Your task to perform on an android device: Open settings on Google Maps Image 0: 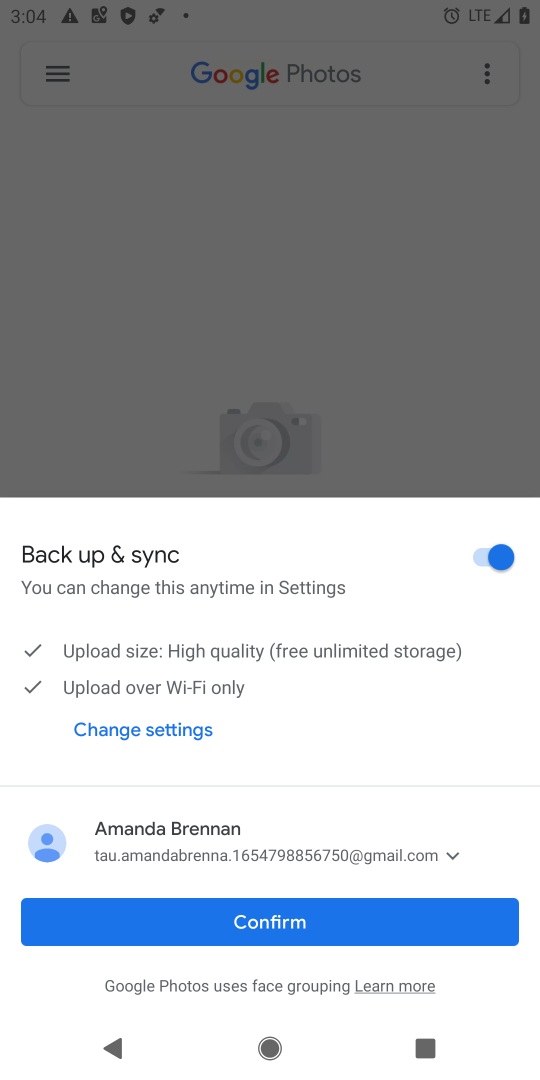
Step 0: press home button
Your task to perform on an android device: Open settings on Google Maps Image 1: 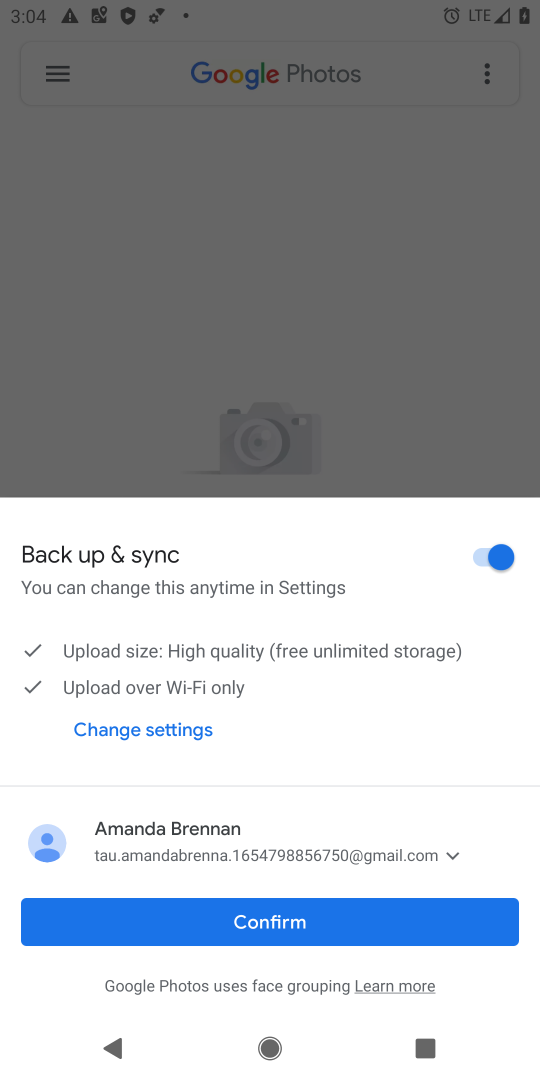
Step 1: press home button
Your task to perform on an android device: Open settings on Google Maps Image 2: 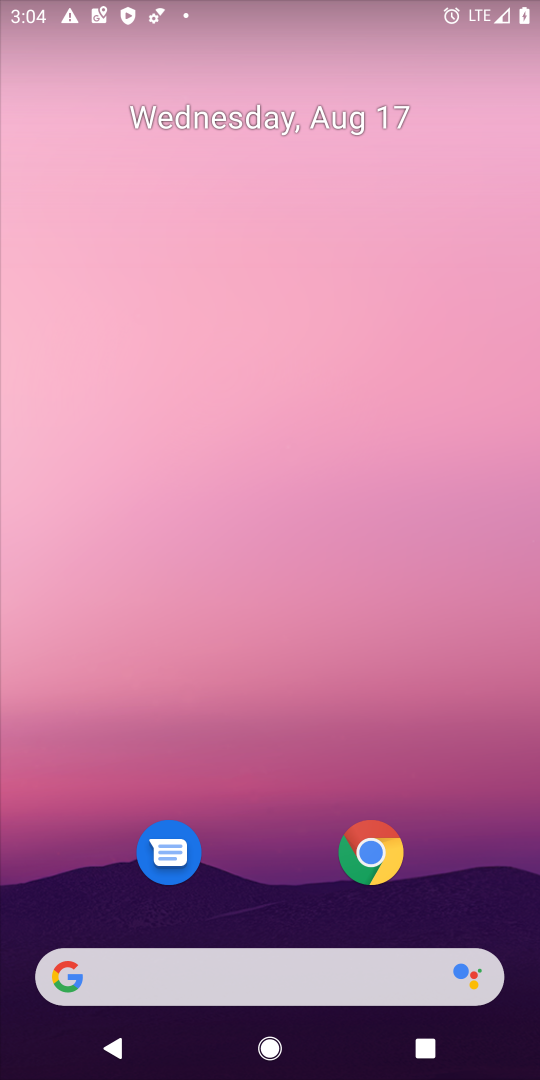
Step 2: press home button
Your task to perform on an android device: Open settings on Google Maps Image 3: 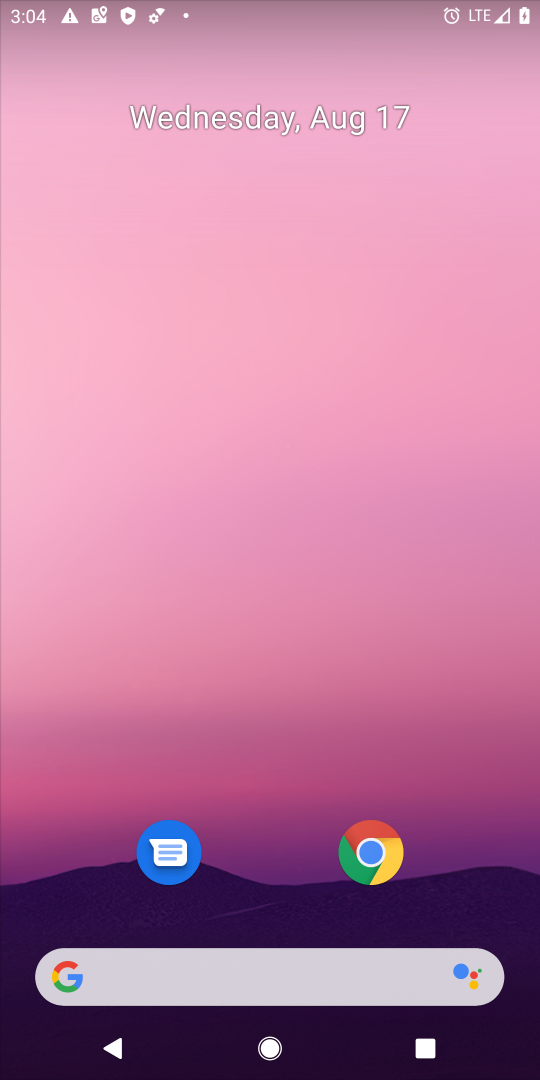
Step 3: press home button
Your task to perform on an android device: Open settings on Google Maps Image 4: 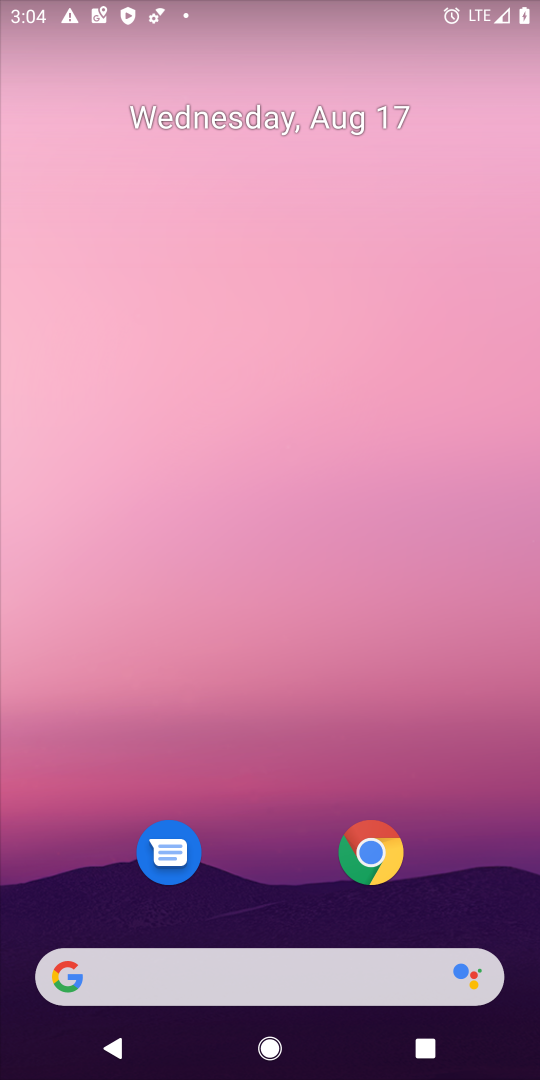
Step 4: drag from (308, 417) to (303, 53)
Your task to perform on an android device: Open settings on Google Maps Image 5: 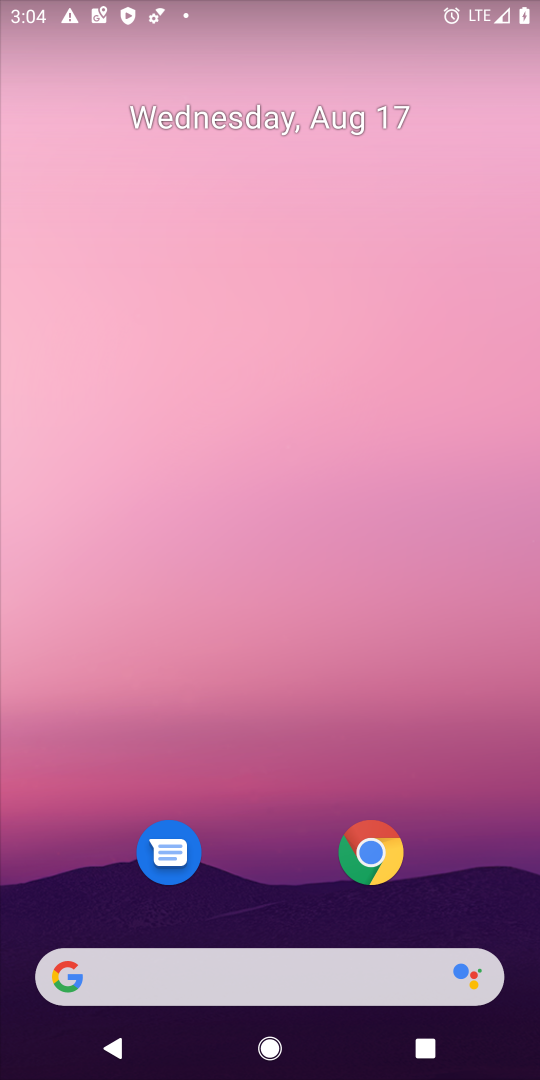
Step 5: drag from (247, 806) to (329, 144)
Your task to perform on an android device: Open settings on Google Maps Image 6: 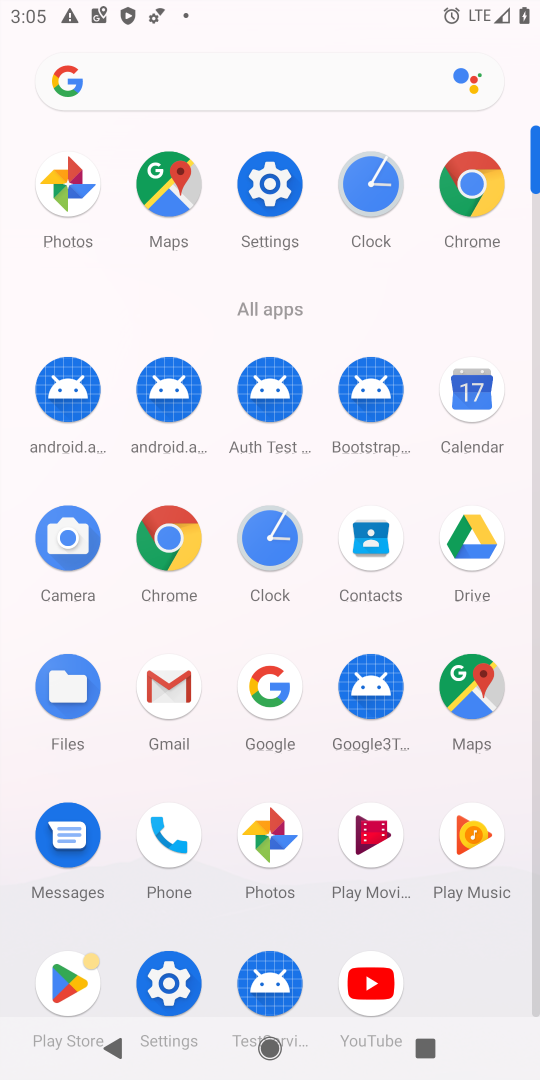
Step 6: click (476, 692)
Your task to perform on an android device: Open settings on Google Maps Image 7: 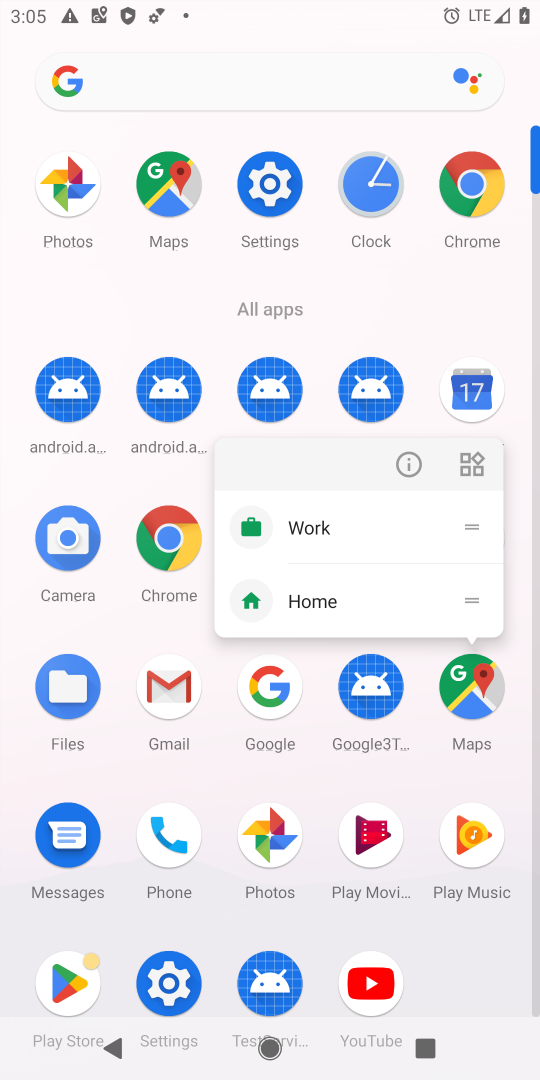
Step 7: click (471, 695)
Your task to perform on an android device: Open settings on Google Maps Image 8: 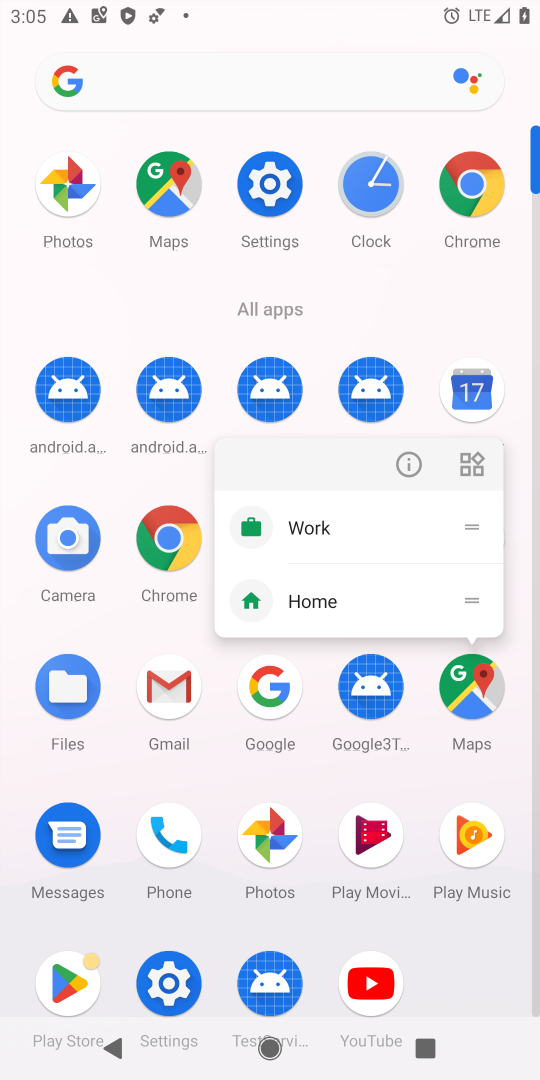
Step 8: click (471, 695)
Your task to perform on an android device: Open settings on Google Maps Image 9: 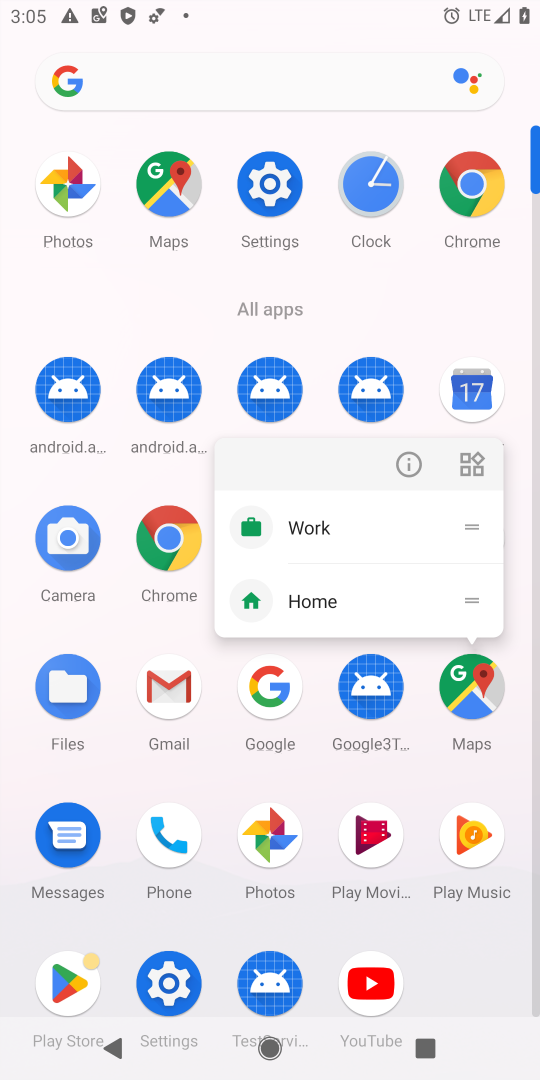
Step 9: click (476, 692)
Your task to perform on an android device: Open settings on Google Maps Image 10: 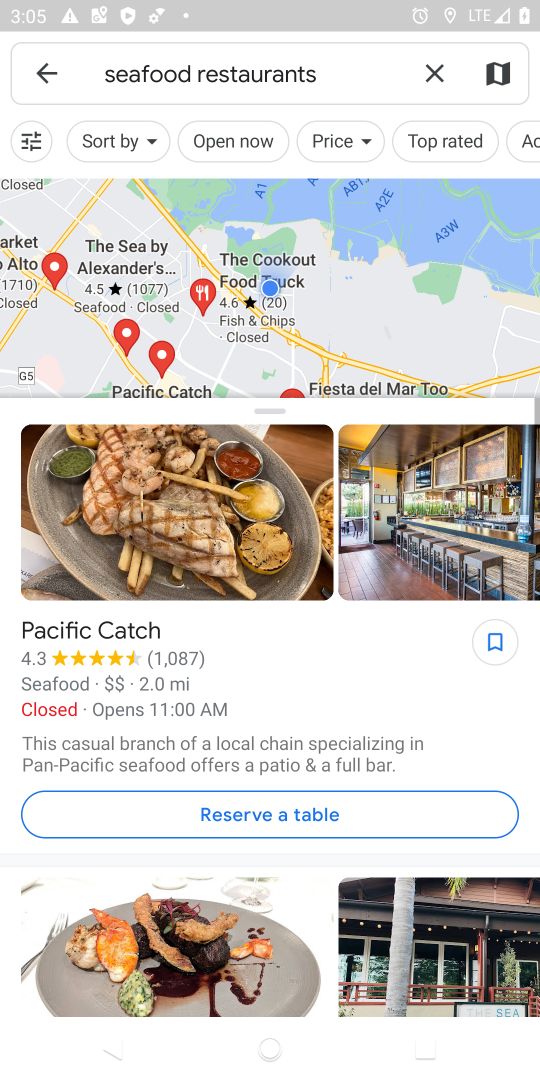
Step 10: click (40, 64)
Your task to perform on an android device: Open settings on Google Maps Image 11: 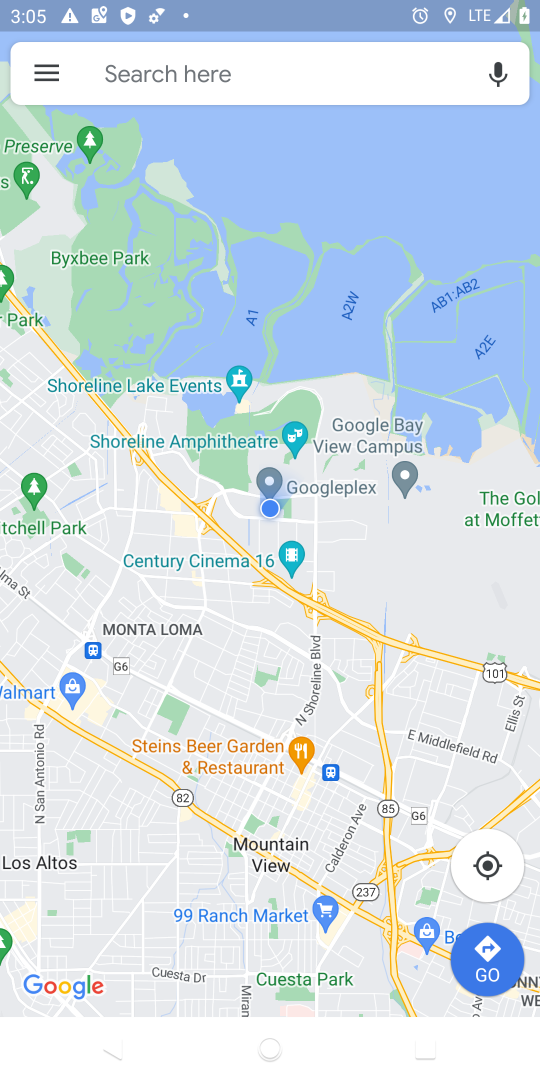
Step 11: click (37, 64)
Your task to perform on an android device: Open settings on Google Maps Image 12: 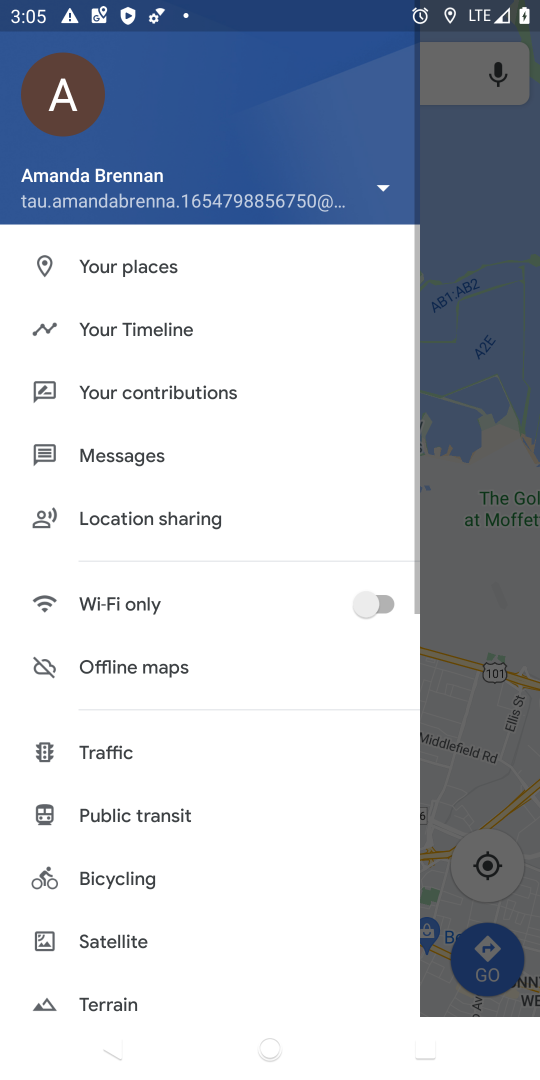
Step 12: drag from (134, 943) to (356, 153)
Your task to perform on an android device: Open settings on Google Maps Image 13: 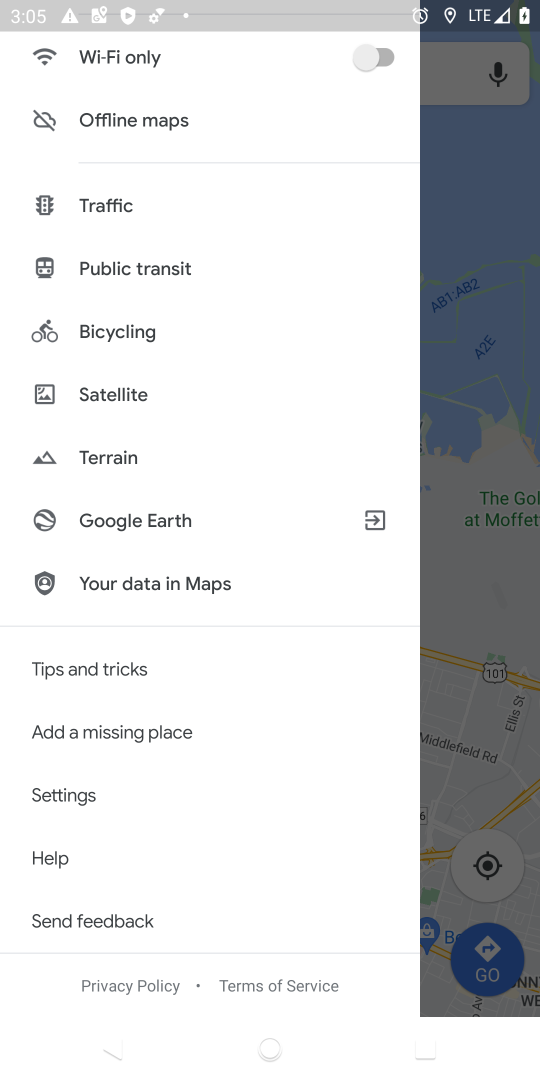
Step 13: click (87, 798)
Your task to perform on an android device: Open settings on Google Maps Image 14: 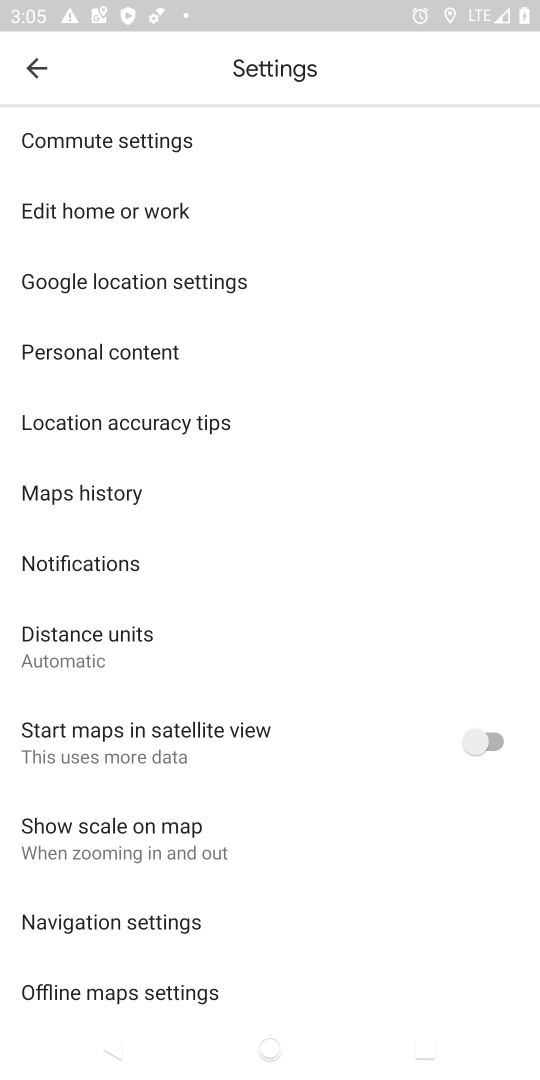
Step 14: task complete